Your task to perform on an android device: Go to internet settings Image 0: 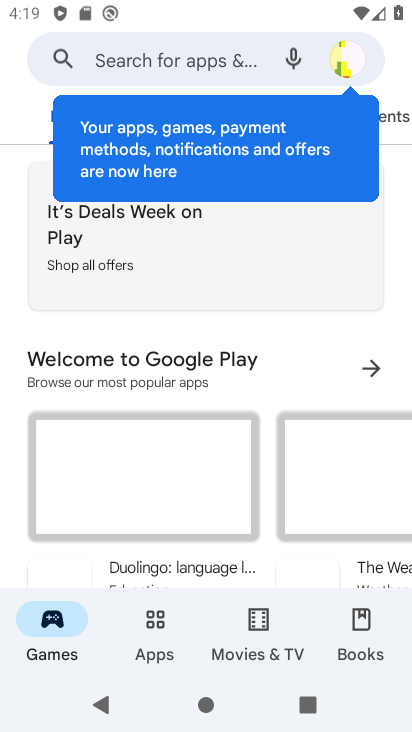
Step 0: press home button
Your task to perform on an android device: Go to internet settings Image 1: 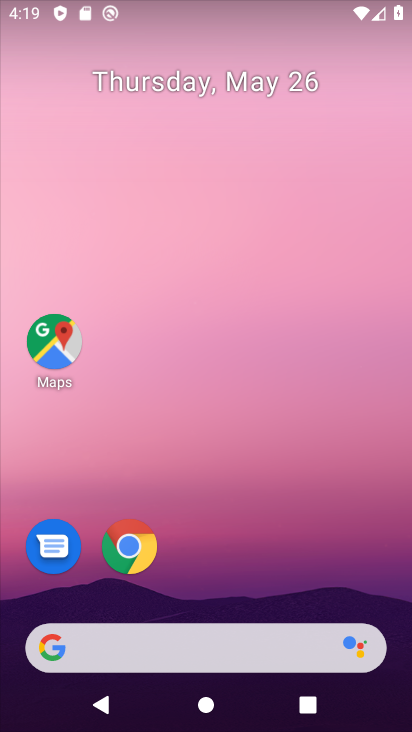
Step 1: drag from (267, 595) to (195, 132)
Your task to perform on an android device: Go to internet settings Image 2: 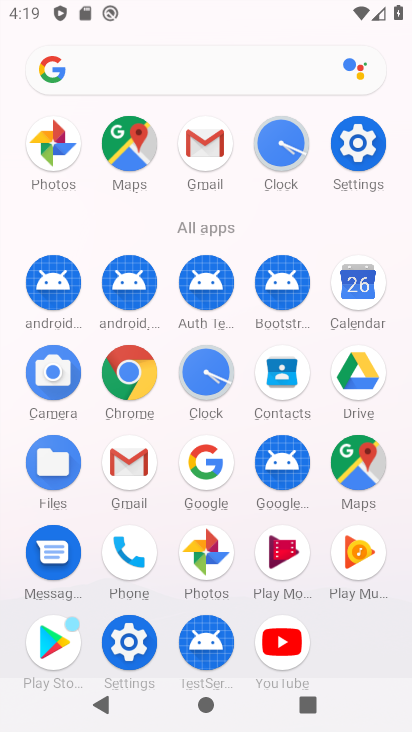
Step 2: click (365, 129)
Your task to perform on an android device: Go to internet settings Image 3: 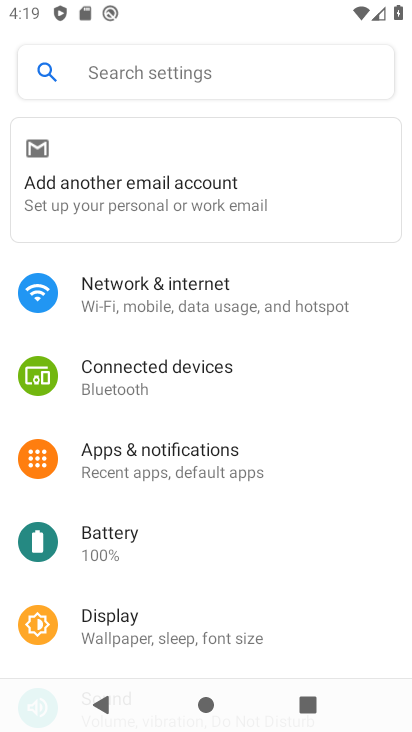
Step 3: click (246, 282)
Your task to perform on an android device: Go to internet settings Image 4: 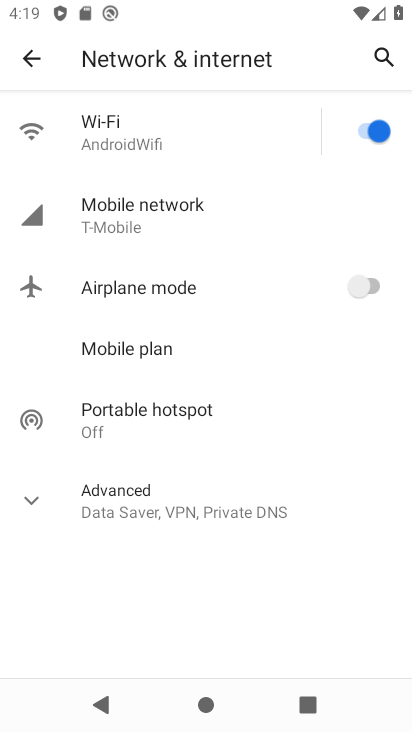
Step 4: task complete